Your task to perform on an android device: turn off priority inbox in the gmail app Image 0: 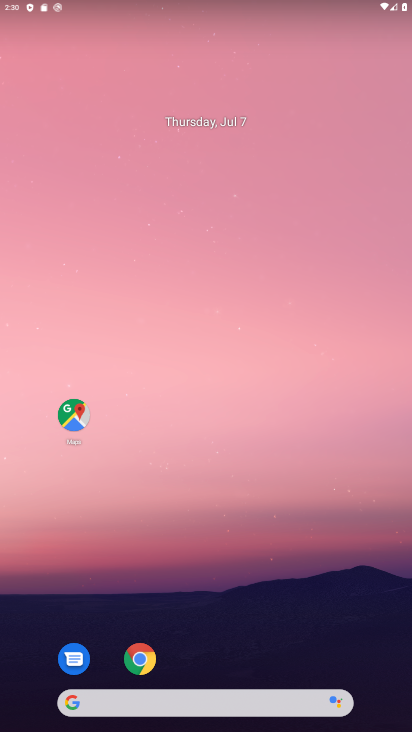
Step 0: drag from (294, 599) to (224, 83)
Your task to perform on an android device: turn off priority inbox in the gmail app Image 1: 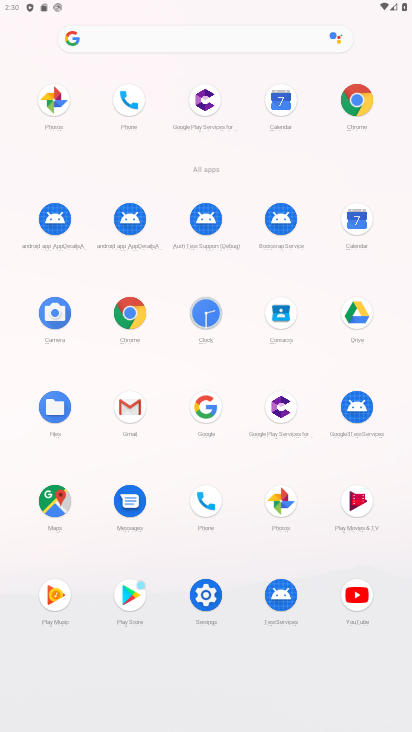
Step 1: click (122, 411)
Your task to perform on an android device: turn off priority inbox in the gmail app Image 2: 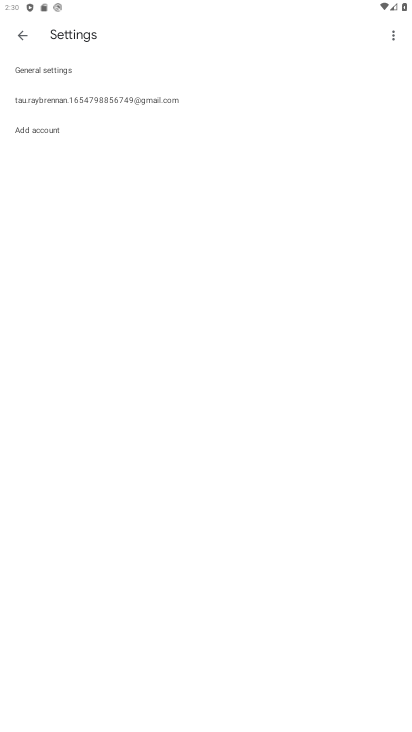
Step 2: click (115, 97)
Your task to perform on an android device: turn off priority inbox in the gmail app Image 3: 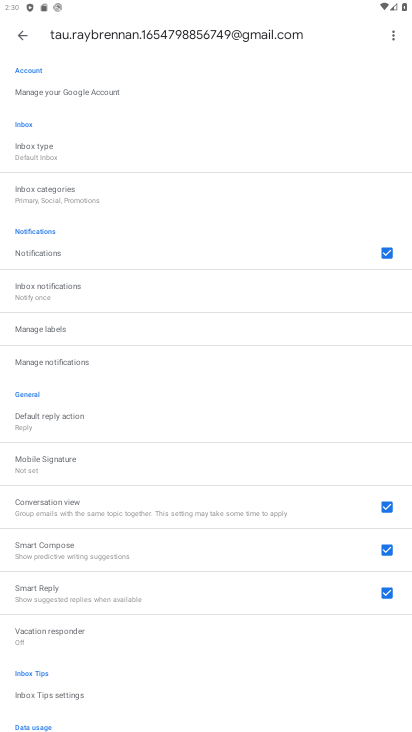
Step 3: click (110, 156)
Your task to perform on an android device: turn off priority inbox in the gmail app Image 4: 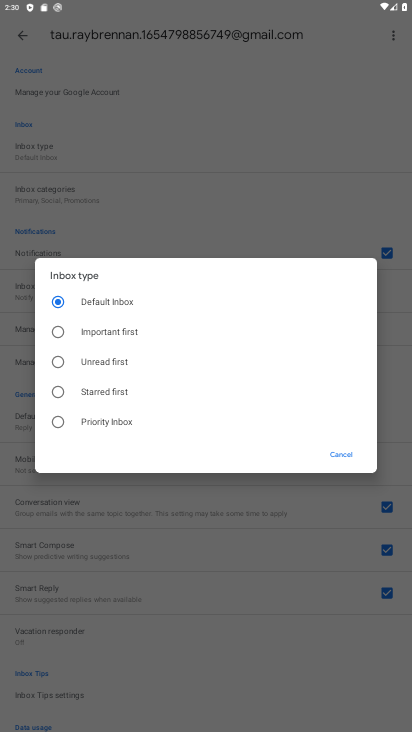
Step 4: task complete